Your task to perform on an android device: check out phone information Image 0: 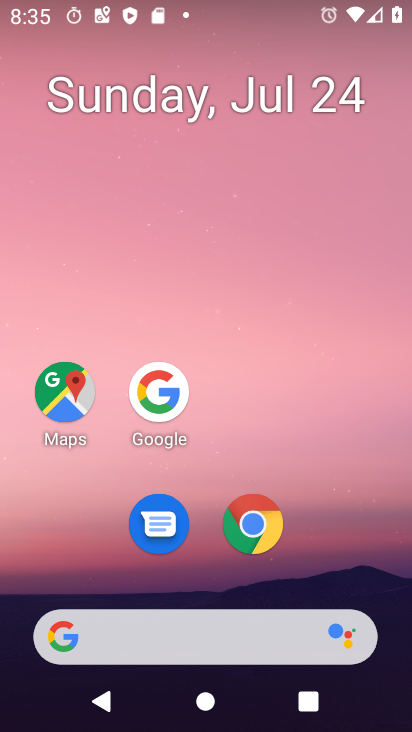
Step 0: press home button
Your task to perform on an android device: check out phone information Image 1: 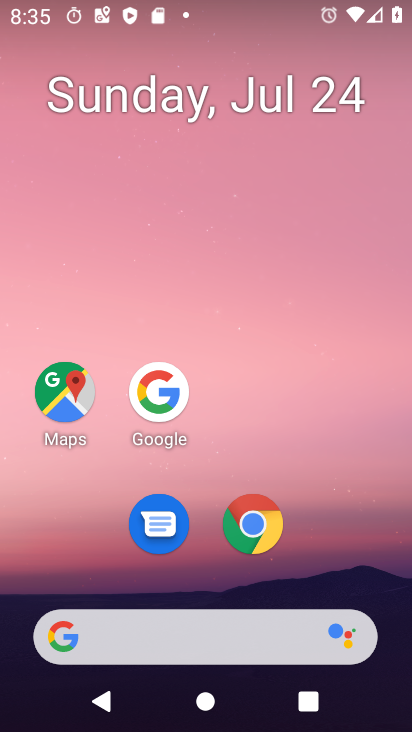
Step 1: drag from (352, 89) to (347, 0)
Your task to perform on an android device: check out phone information Image 2: 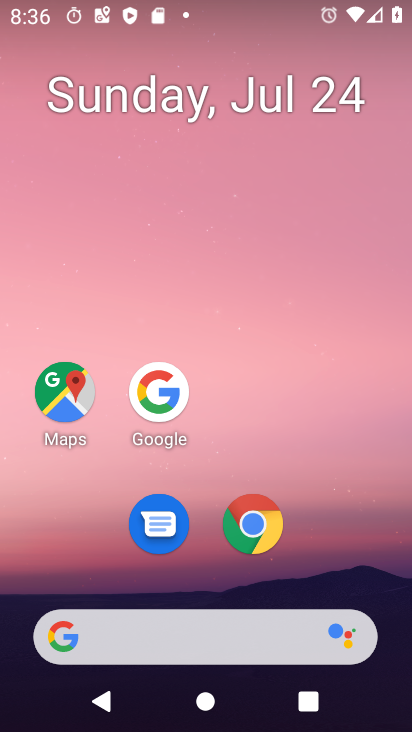
Step 2: drag from (151, 638) to (354, 1)
Your task to perform on an android device: check out phone information Image 3: 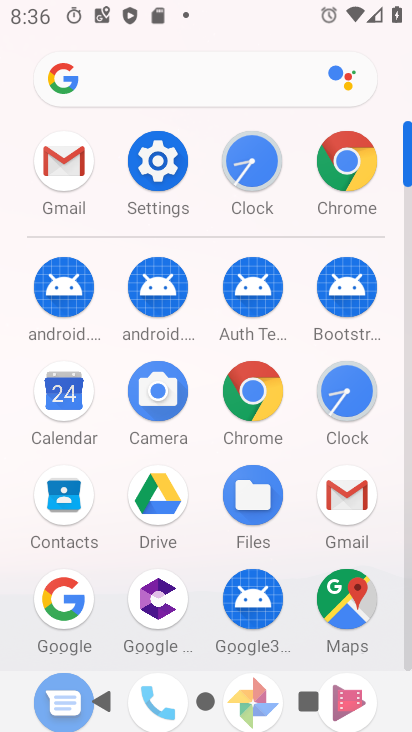
Step 3: click (166, 171)
Your task to perform on an android device: check out phone information Image 4: 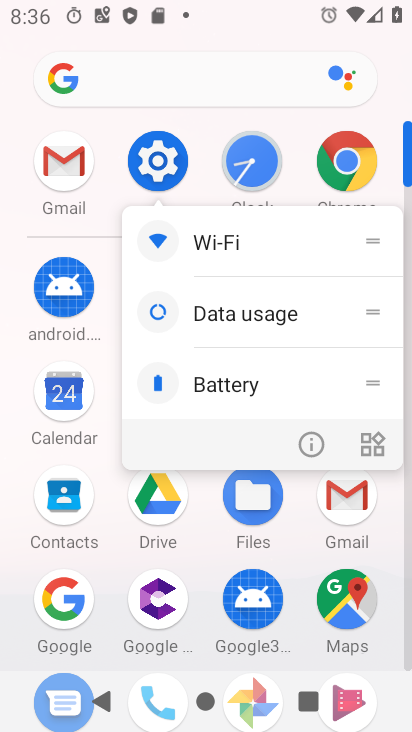
Step 4: click (155, 151)
Your task to perform on an android device: check out phone information Image 5: 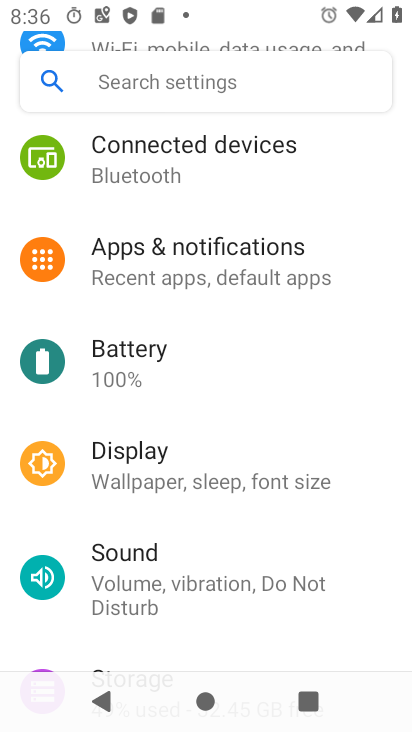
Step 5: drag from (209, 619) to (406, 38)
Your task to perform on an android device: check out phone information Image 6: 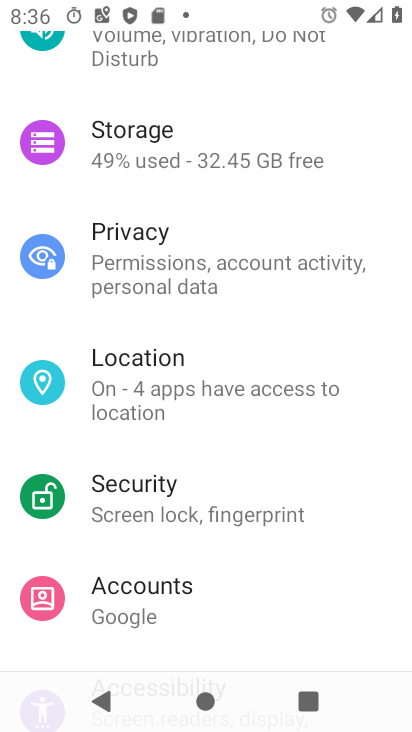
Step 6: drag from (221, 618) to (404, 1)
Your task to perform on an android device: check out phone information Image 7: 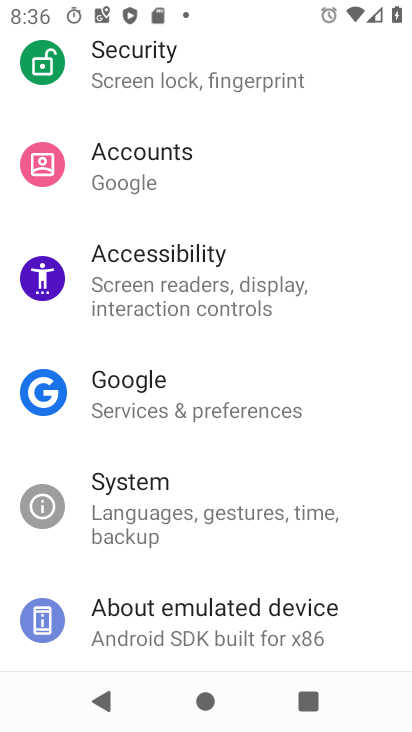
Step 7: click (216, 618)
Your task to perform on an android device: check out phone information Image 8: 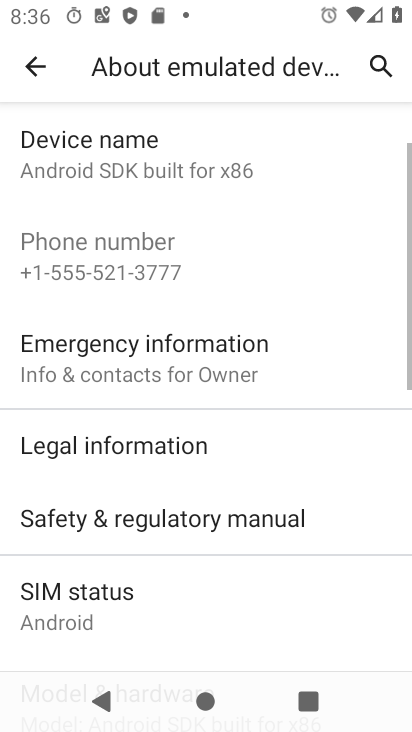
Step 8: task complete